Your task to perform on an android device: Open the stopwatch Image 0: 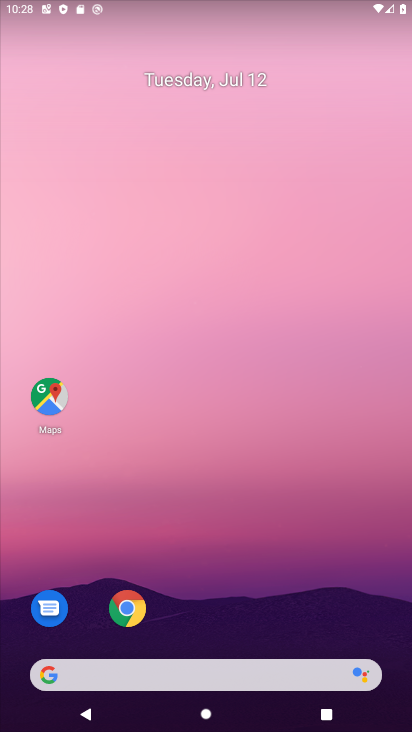
Step 0: drag from (306, 585) to (368, 11)
Your task to perform on an android device: Open the stopwatch Image 1: 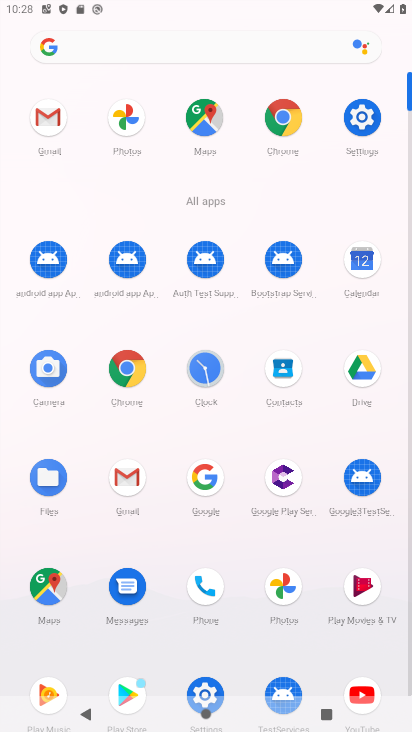
Step 1: click (191, 363)
Your task to perform on an android device: Open the stopwatch Image 2: 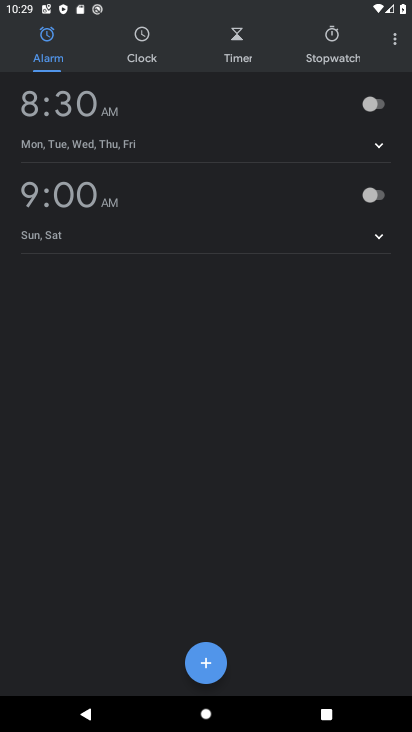
Step 2: click (331, 50)
Your task to perform on an android device: Open the stopwatch Image 3: 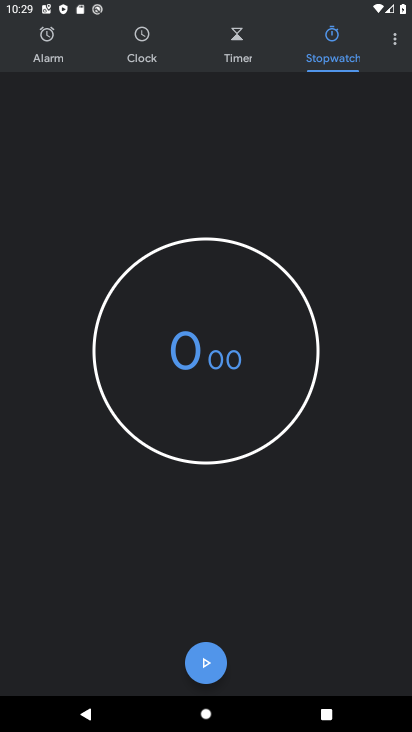
Step 3: click (204, 651)
Your task to perform on an android device: Open the stopwatch Image 4: 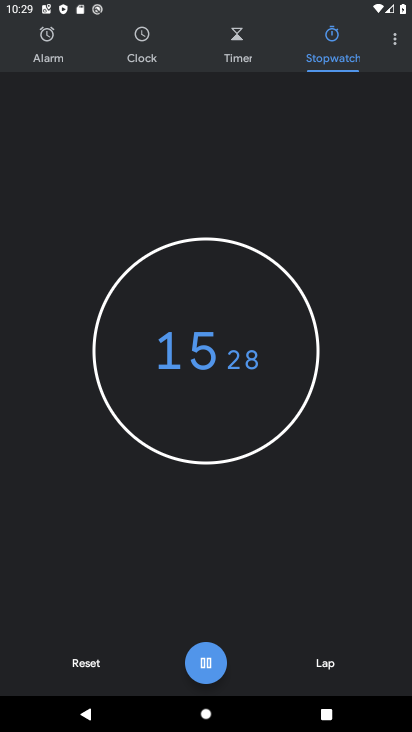
Step 4: task complete